Your task to perform on an android device: What's the weather? Image 0: 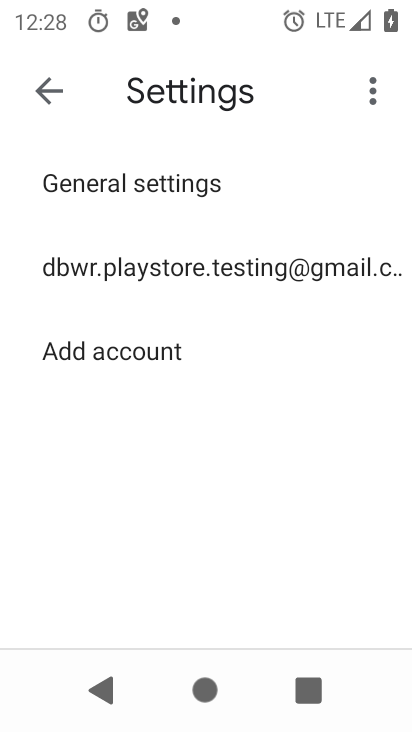
Step 0: press home button
Your task to perform on an android device: What's the weather? Image 1: 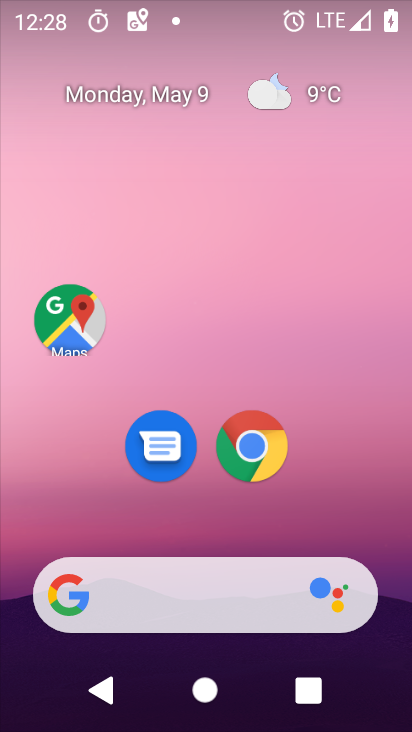
Step 1: click (318, 101)
Your task to perform on an android device: What's the weather? Image 2: 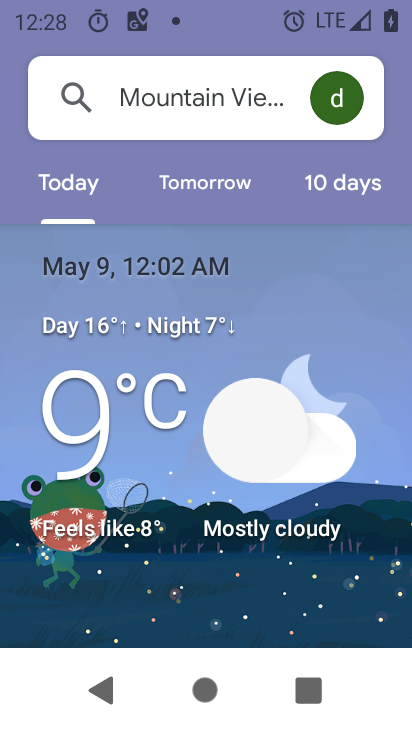
Step 2: task complete